Your task to perform on an android device: Open the web browser Image 0: 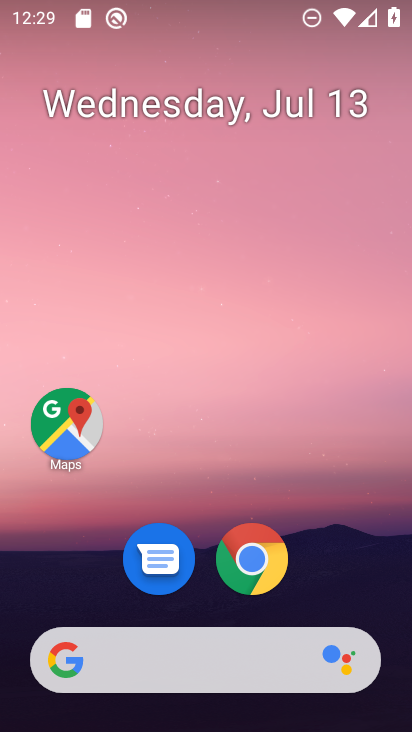
Step 0: drag from (213, 681) to (206, 164)
Your task to perform on an android device: Open the web browser Image 1: 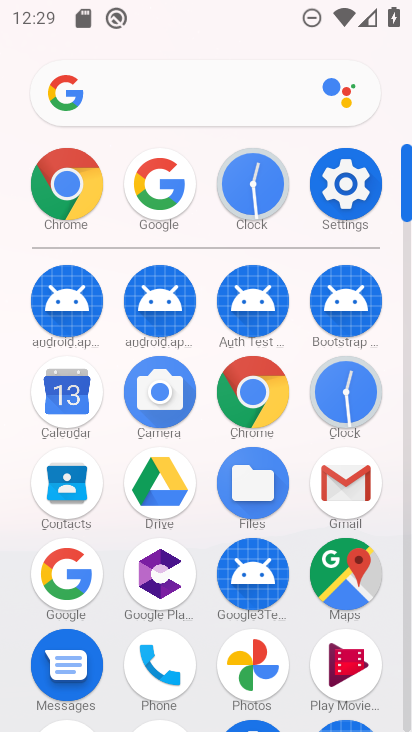
Step 1: drag from (286, 534) to (309, 275)
Your task to perform on an android device: Open the web browser Image 2: 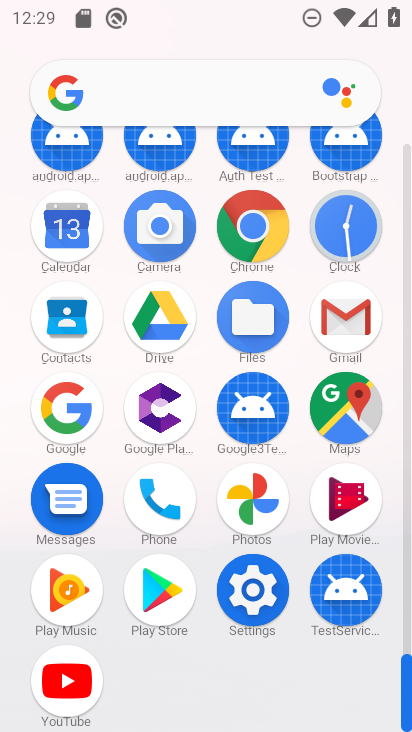
Step 2: click (248, 241)
Your task to perform on an android device: Open the web browser Image 3: 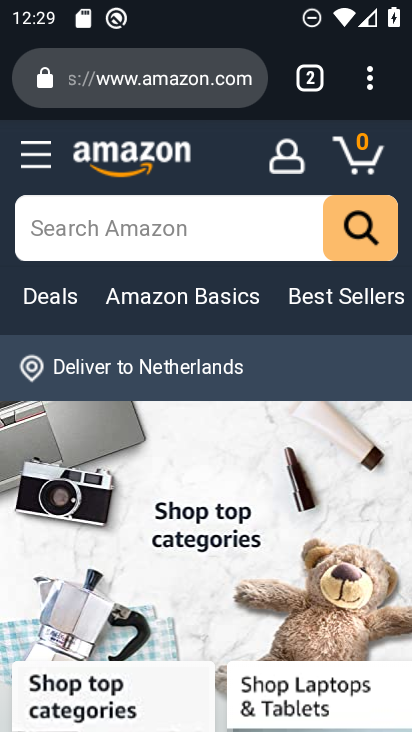
Step 3: task complete